Your task to perform on an android device: turn off data saver in the chrome app Image 0: 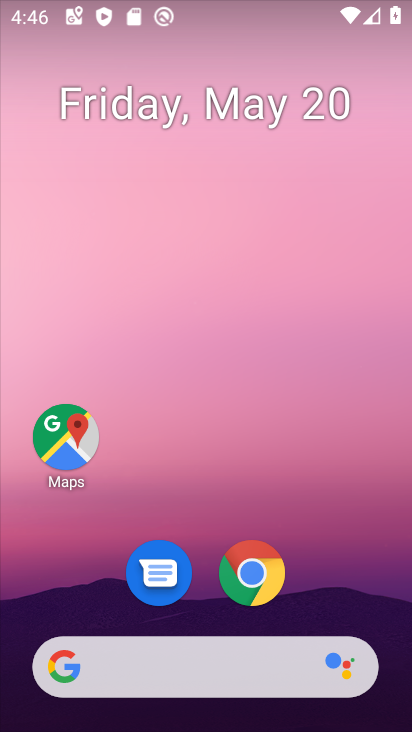
Step 0: click (254, 577)
Your task to perform on an android device: turn off data saver in the chrome app Image 1: 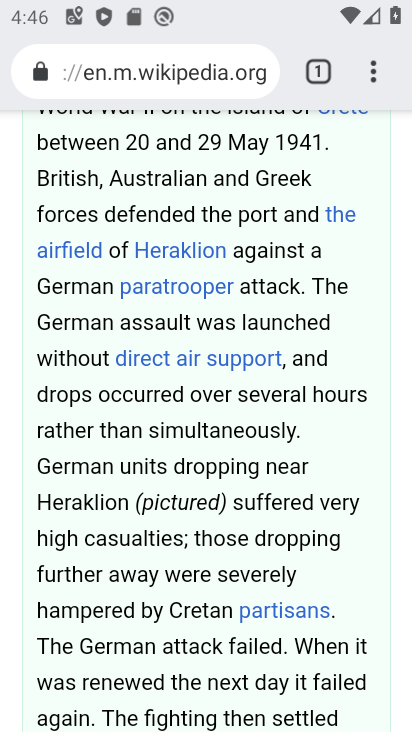
Step 1: click (373, 78)
Your task to perform on an android device: turn off data saver in the chrome app Image 2: 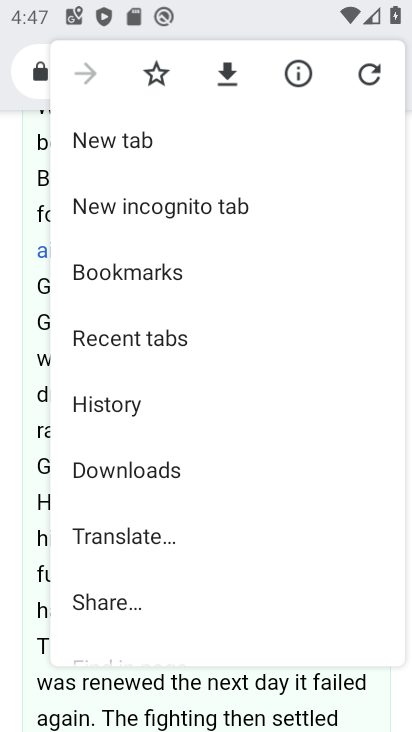
Step 2: drag from (280, 578) to (247, 208)
Your task to perform on an android device: turn off data saver in the chrome app Image 3: 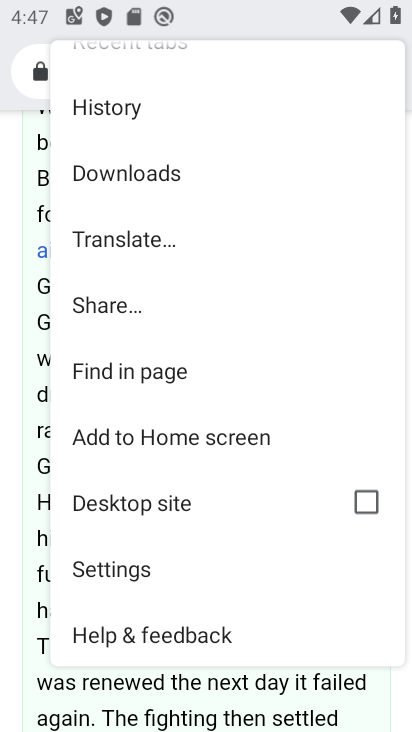
Step 3: click (127, 576)
Your task to perform on an android device: turn off data saver in the chrome app Image 4: 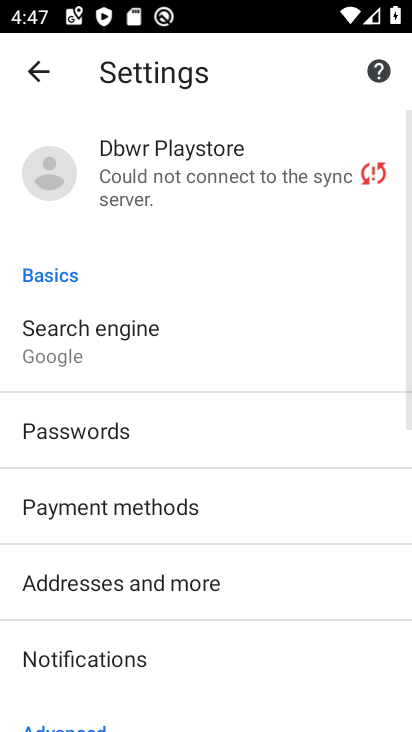
Step 4: drag from (299, 683) to (264, 194)
Your task to perform on an android device: turn off data saver in the chrome app Image 5: 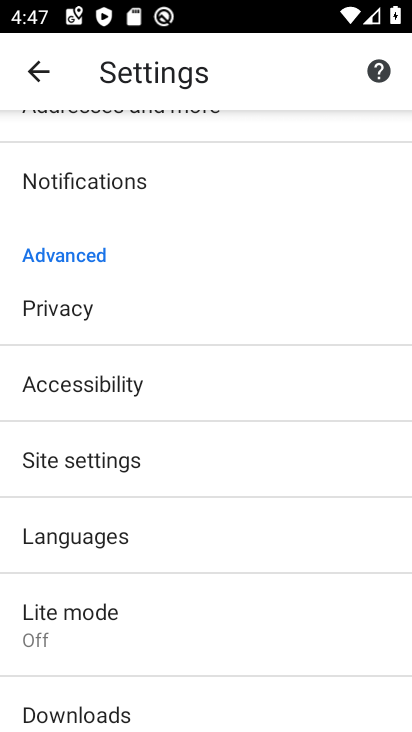
Step 5: click (58, 609)
Your task to perform on an android device: turn off data saver in the chrome app Image 6: 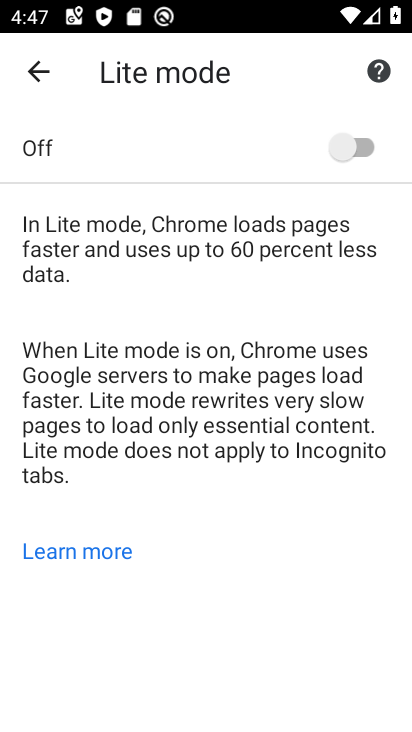
Step 6: task complete